Your task to perform on an android device: Go to sound settings Image 0: 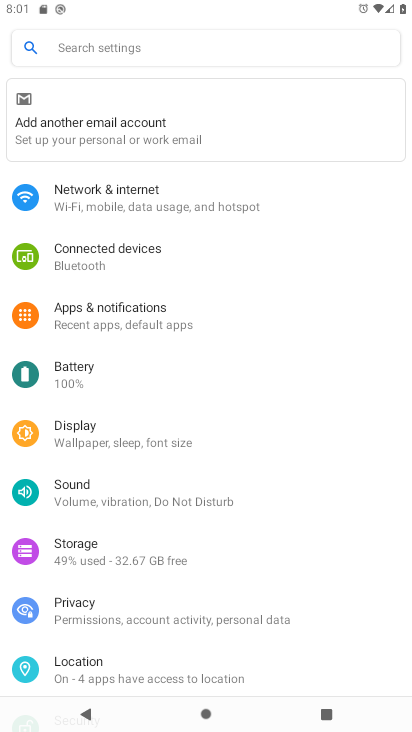
Step 0: click (108, 499)
Your task to perform on an android device: Go to sound settings Image 1: 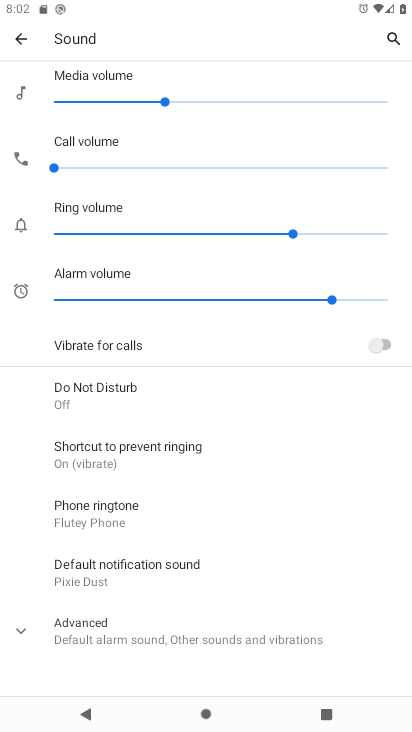
Step 1: task complete